Your task to perform on an android device: check battery use Image 0: 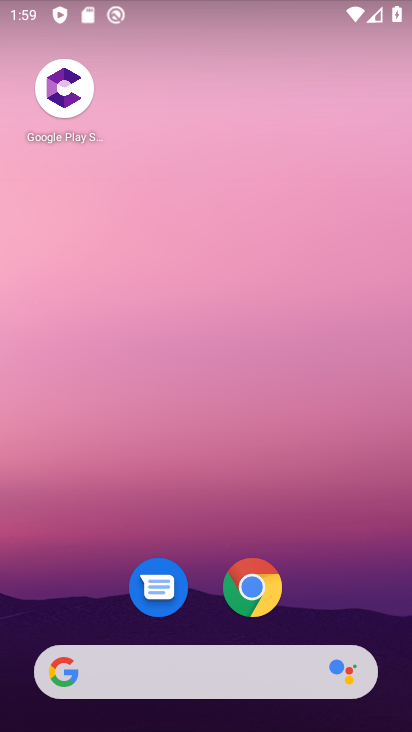
Step 0: drag from (312, 605) to (382, 30)
Your task to perform on an android device: check battery use Image 1: 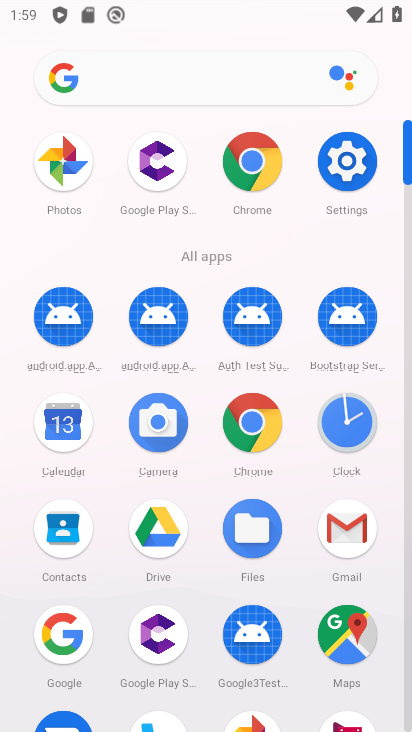
Step 1: click (336, 156)
Your task to perform on an android device: check battery use Image 2: 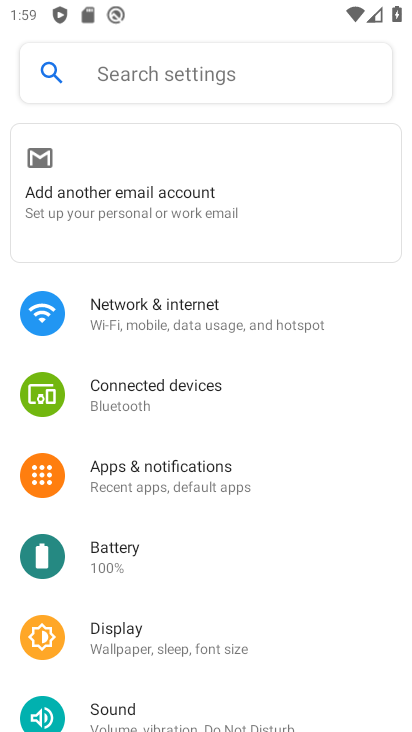
Step 2: click (129, 558)
Your task to perform on an android device: check battery use Image 3: 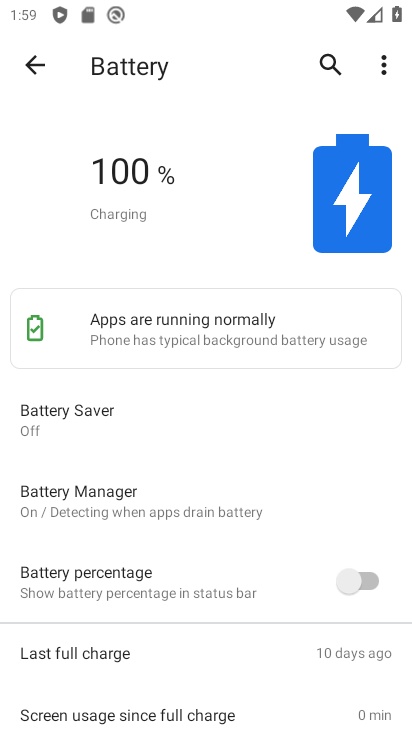
Step 3: click (389, 68)
Your task to perform on an android device: check battery use Image 4: 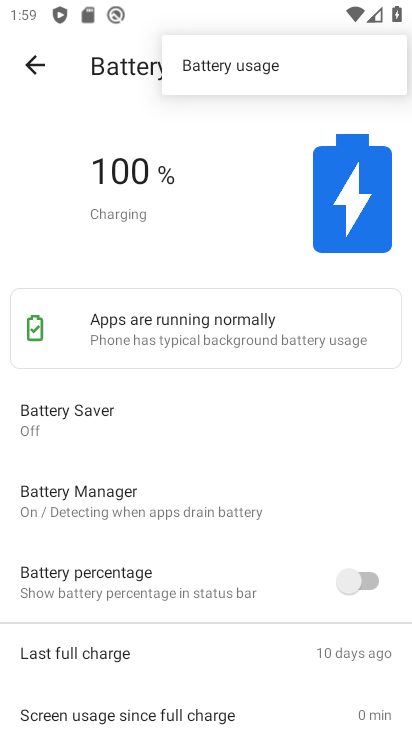
Step 4: click (348, 76)
Your task to perform on an android device: check battery use Image 5: 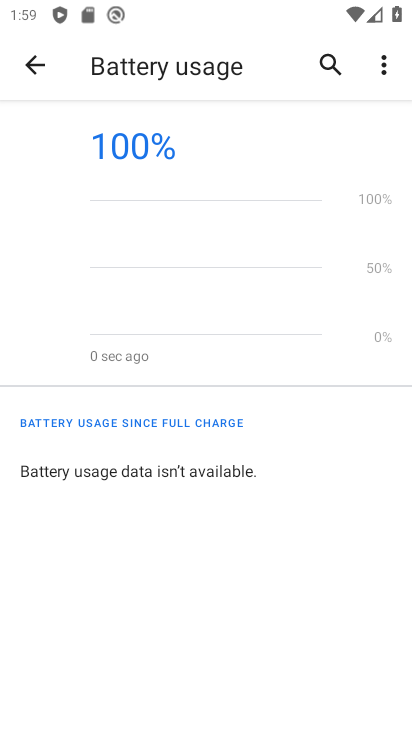
Step 5: task complete